Your task to perform on an android device: Go to notification settings Image 0: 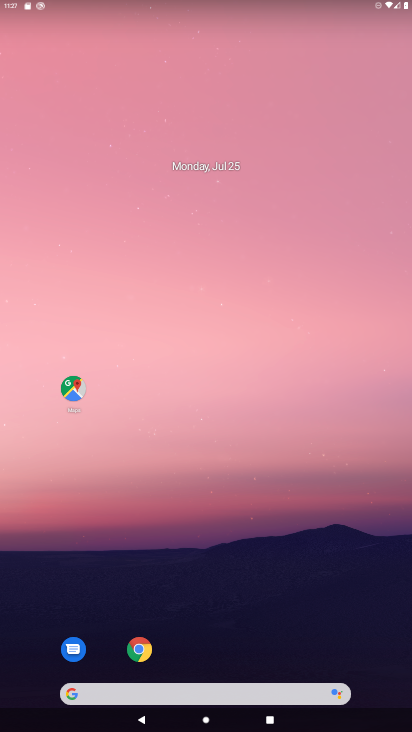
Step 0: drag from (389, 664) to (329, 102)
Your task to perform on an android device: Go to notification settings Image 1: 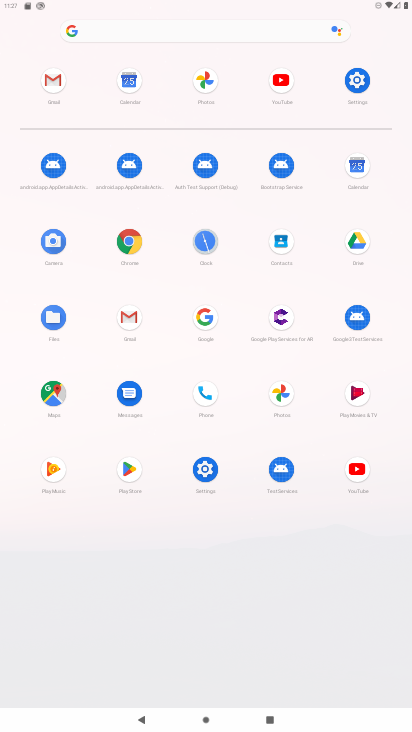
Step 1: click (204, 469)
Your task to perform on an android device: Go to notification settings Image 2: 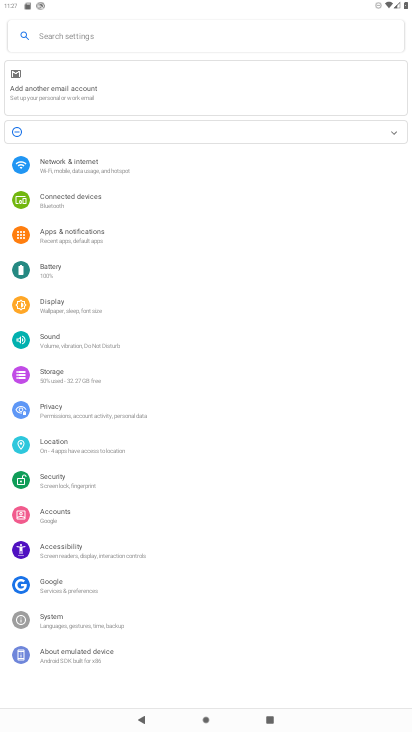
Step 2: click (62, 233)
Your task to perform on an android device: Go to notification settings Image 3: 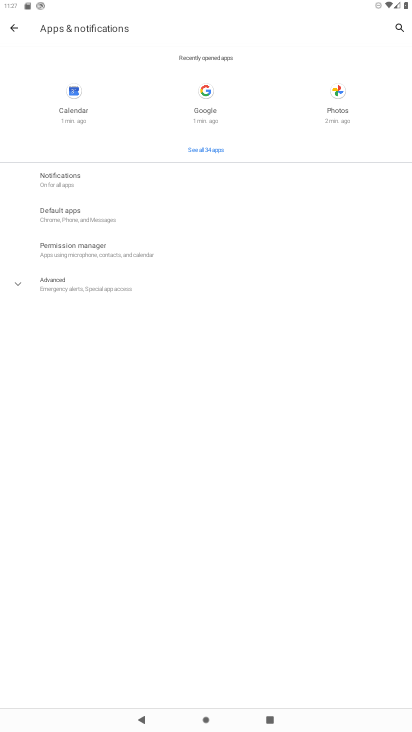
Step 3: click (57, 177)
Your task to perform on an android device: Go to notification settings Image 4: 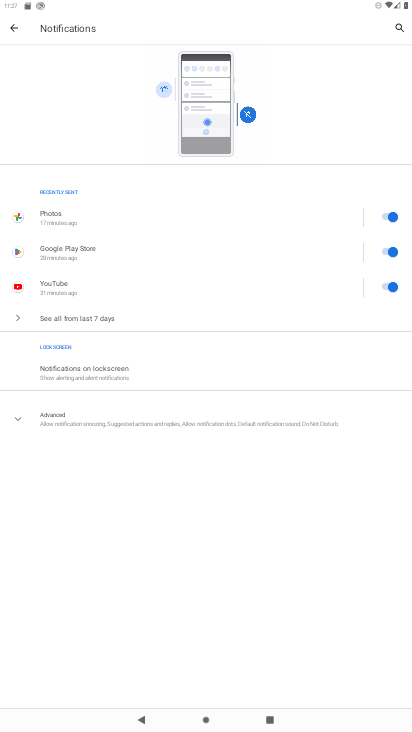
Step 4: click (14, 418)
Your task to perform on an android device: Go to notification settings Image 5: 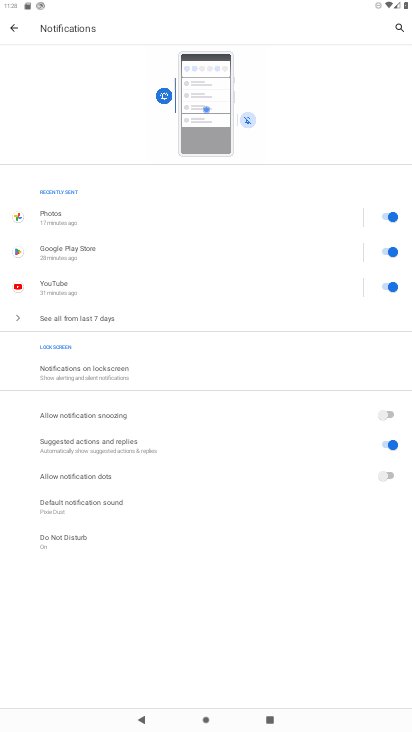
Step 5: task complete